Your task to perform on an android device: check out phone information Image 0: 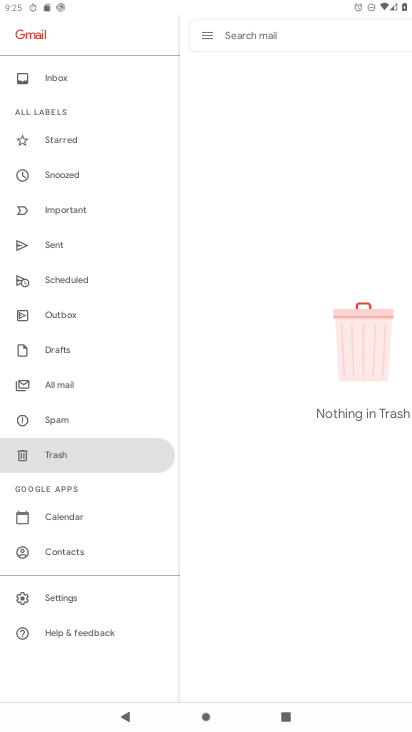
Step 0: press back button
Your task to perform on an android device: check out phone information Image 1: 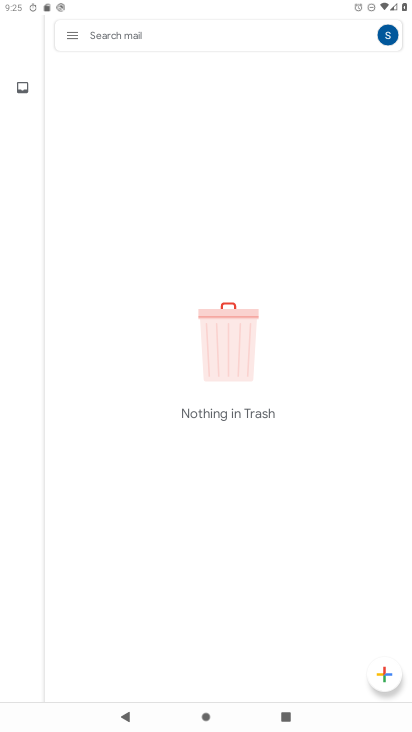
Step 1: press home button
Your task to perform on an android device: check out phone information Image 2: 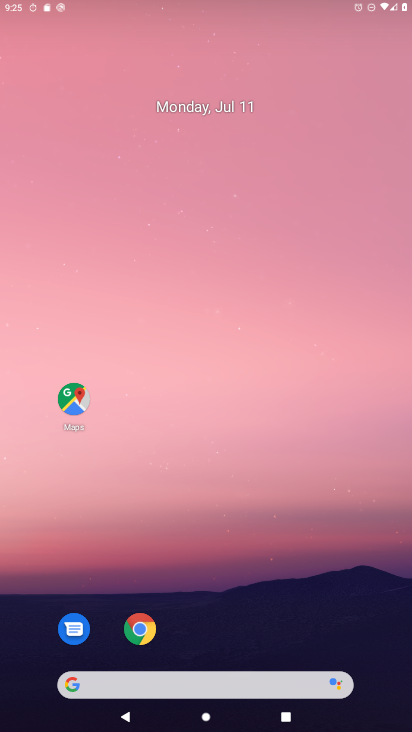
Step 2: drag from (250, 638) to (263, 151)
Your task to perform on an android device: check out phone information Image 3: 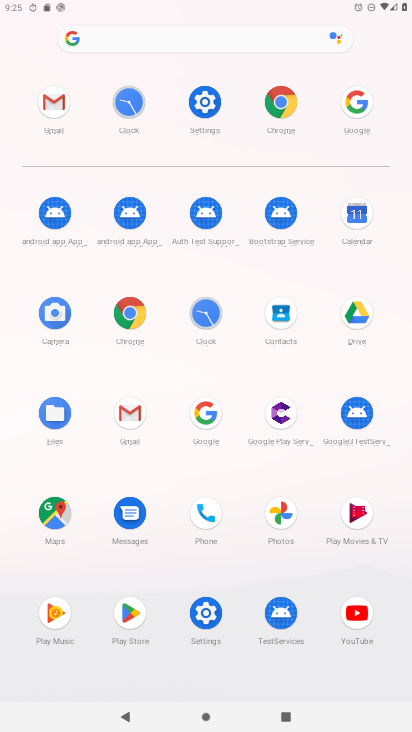
Step 3: click (204, 109)
Your task to perform on an android device: check out phone information Image 4: 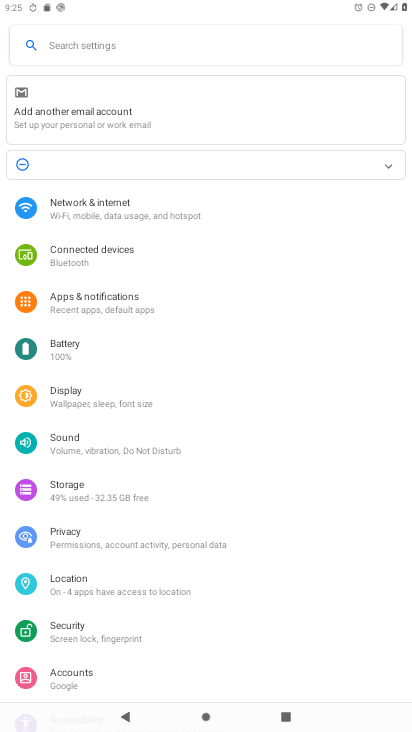
Step 4: drag from (200, 646) to (290, 96)
Your task to perform on an android device: check out phone information Image 5: 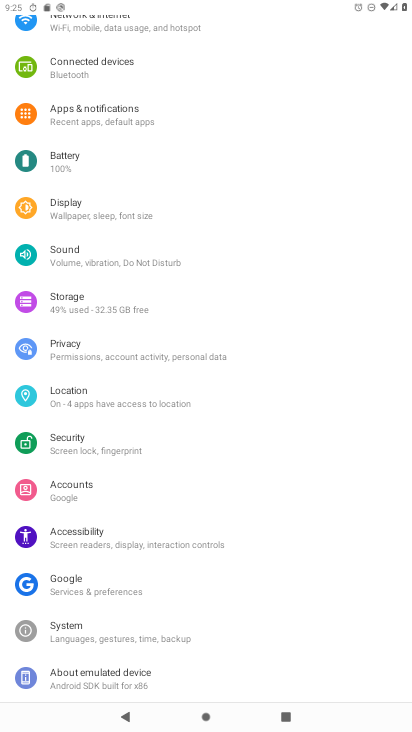
Step 5: click (142, 683)
Your task to perform on an android device: check out phone information Image 6: 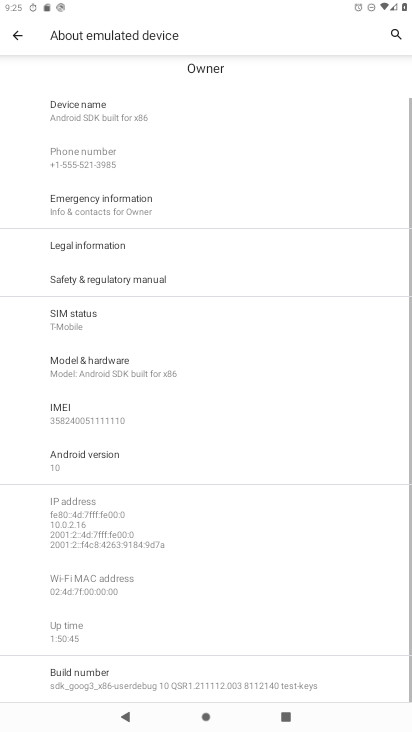
Step 6: task complete